Your task to perform on an android device: toggle priority inbox in the gmail app Image 0: 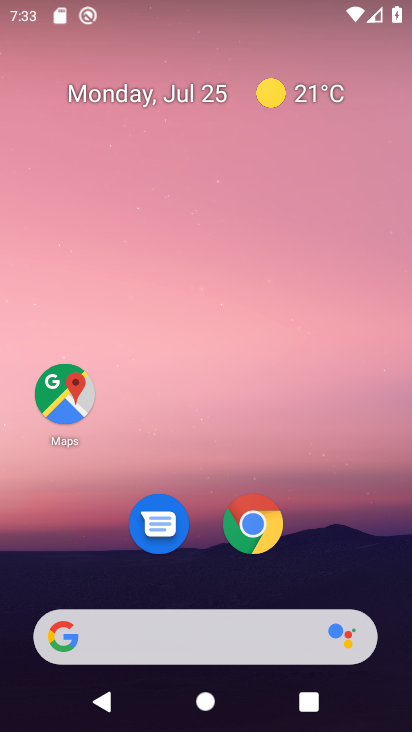
Step 0: drag from (240, 627) to (319, 78)
Your task to perform on an android device: toggle priority inbox in the gmail app Image 1: 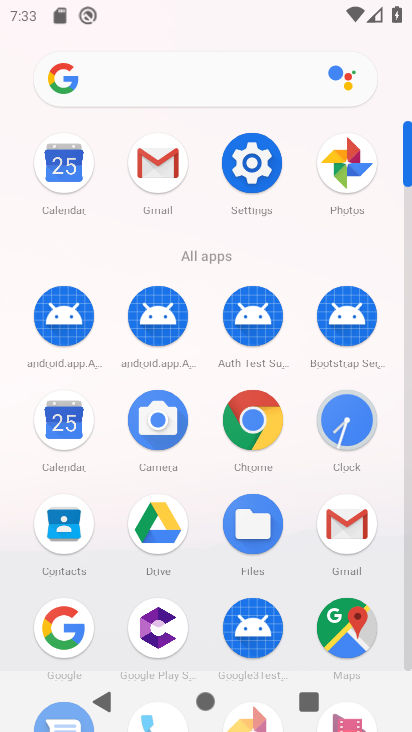
Step 1: click (143, 168)
Your task to perform on an android device: toggle priority inbox in the gmail app Image 2: 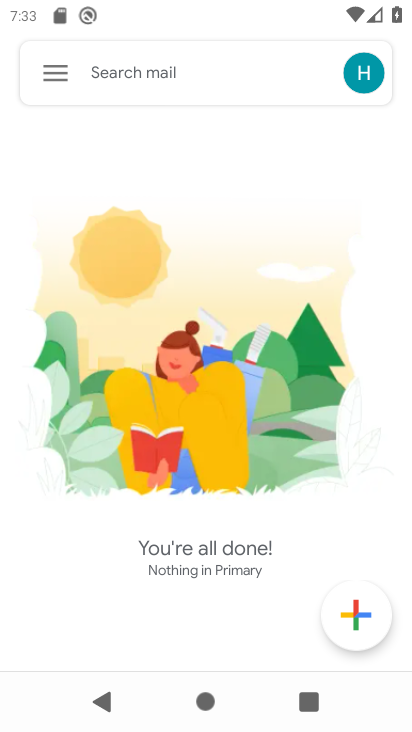
Step 2: click (59, 73)
Your task to perform on an android device: toggle priority inbox in the gmail app Image 3: 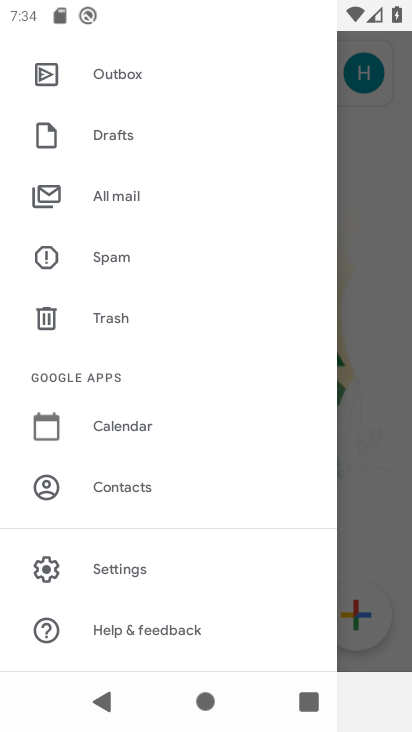
Step 3: click (121, 575)
Your task to perform on an android device: toggle priority inbox in the gmail app Image 4: 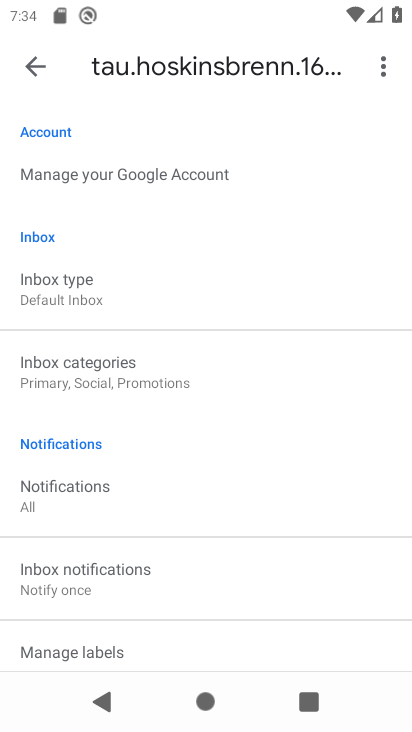
Step 4: click (92, 301)
Your task to perform on an android device: toggle priority inbox in the gmail app Image 5: 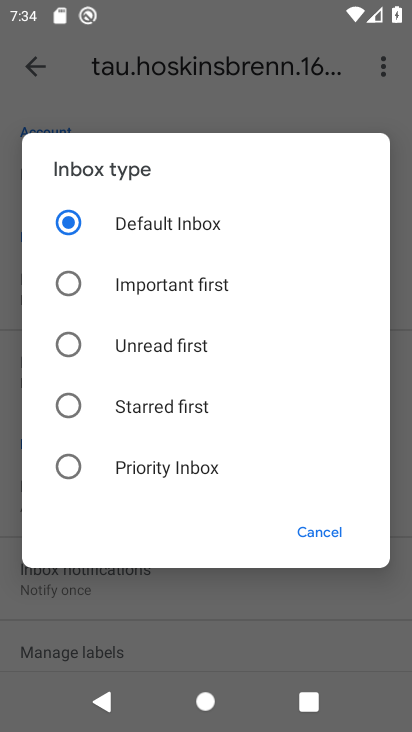
Step 5: click (181, 337)
Your task to perform on an android device: toggle priority inbox in the gmail app Image 6: 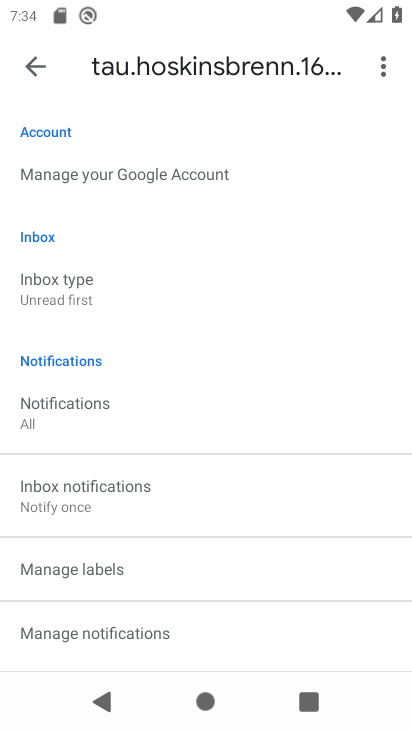
Step 6: click (93, 296)
Your task to perform on an android device: toggle priority inbox in the gmail app Image 7: 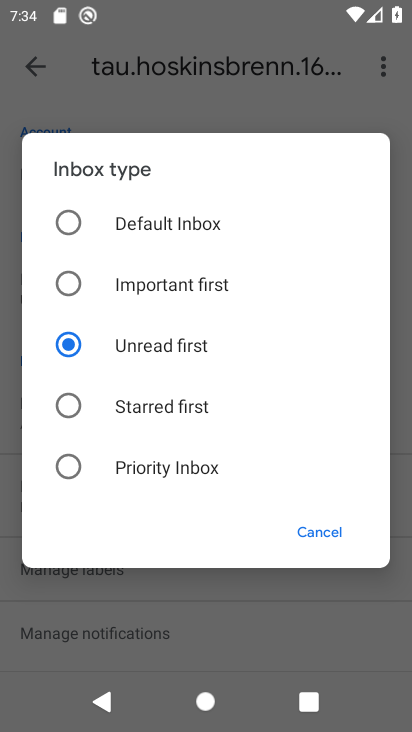
Step 7: click (71, 474)
Your task to perform on an android device: toggle priority inbox in the gmail app Image 8: 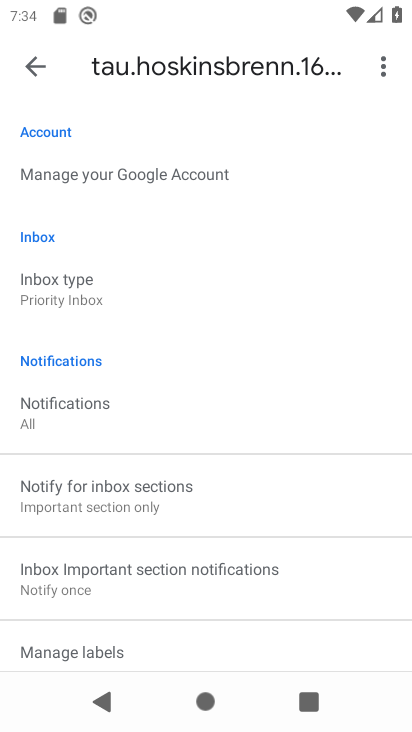
Step 8: task complete